Your task to perform on an android device: Go to Amazon Image 0: 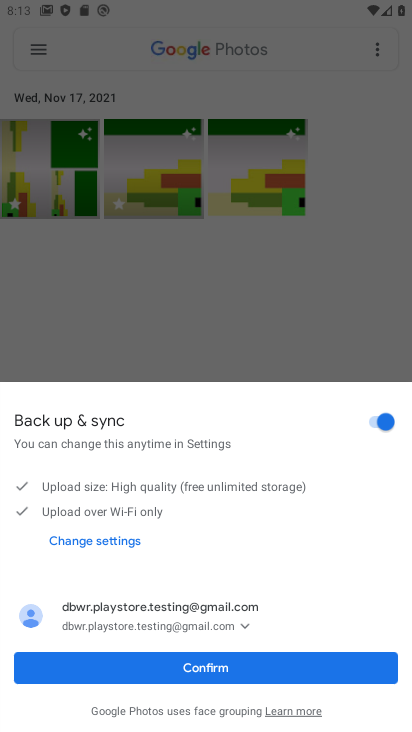
Step 0: press back button
Your task to perform on an android device: Go to Amazon Image 1: 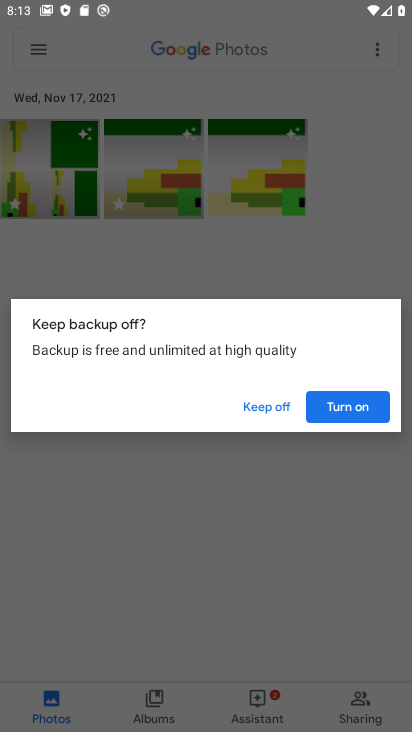
Step 1: press back button
Your task to perform on an android device: Go to Amazon Image 2: 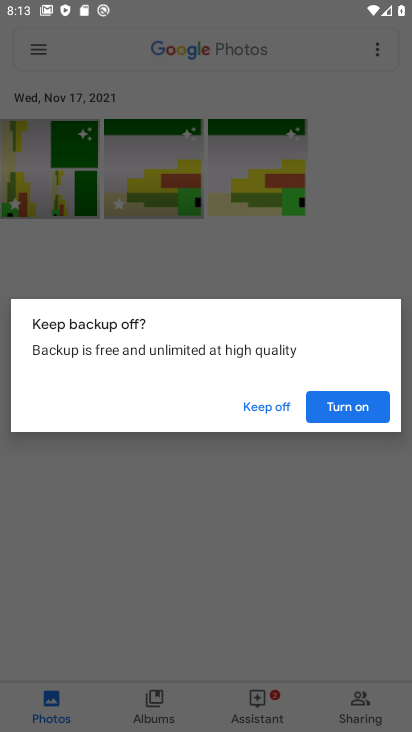
Step 2: press back button
Your task to perform on an android device: Go to Amazon Image 3: 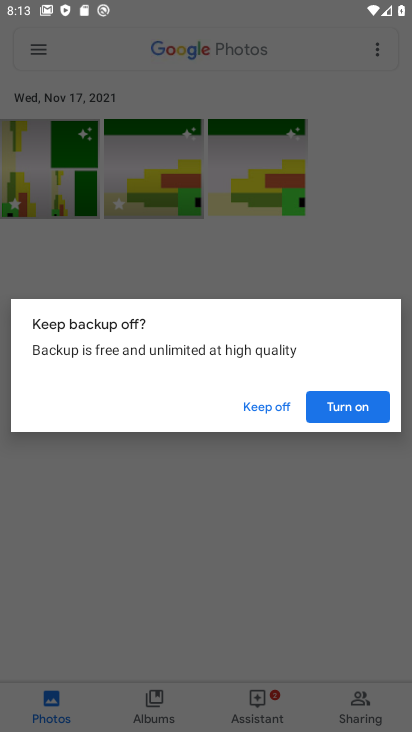
Step 3: press back button
Your task to perform on an android device: Go to Amazon Image 4: 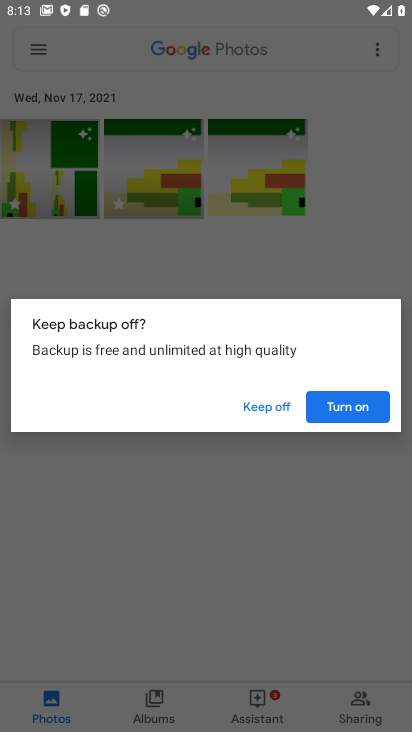
Step 4: press back button
Your task to perform on an android device: Go to Amazon Image 5: 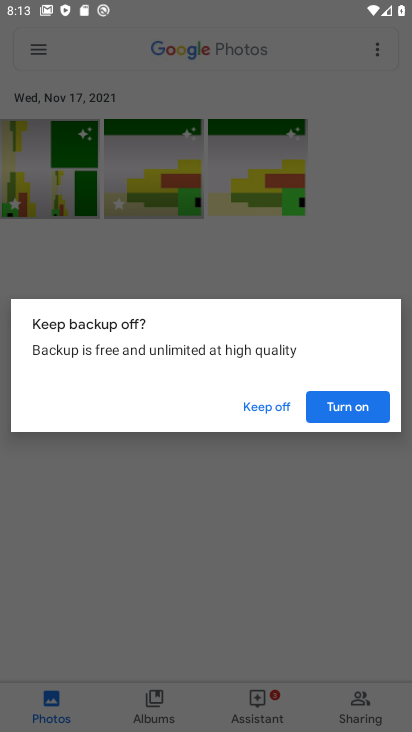
Step 5: press home button
Your task to perform on an android device: Go to Amazon Image 6: 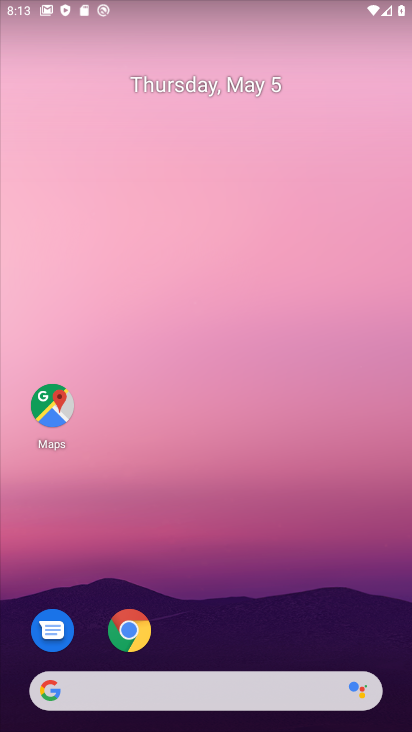
Step 6: click (138, 635)
Your task to perform on an android device: Go to Amazon Image 7: 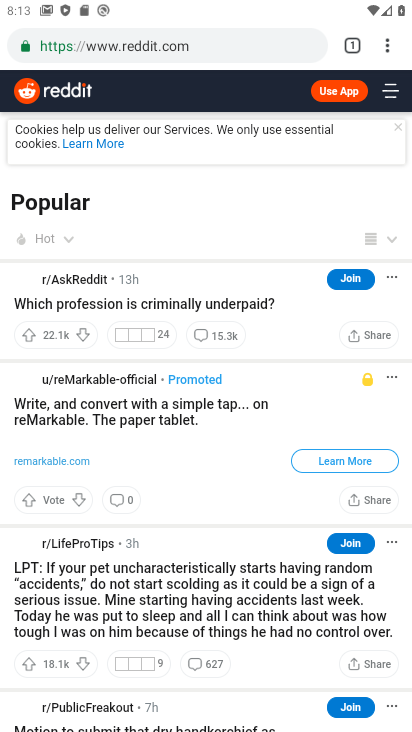
Step 7: click (357, 43)
Your task to perform on an android device: Go to Amazon Image 8: 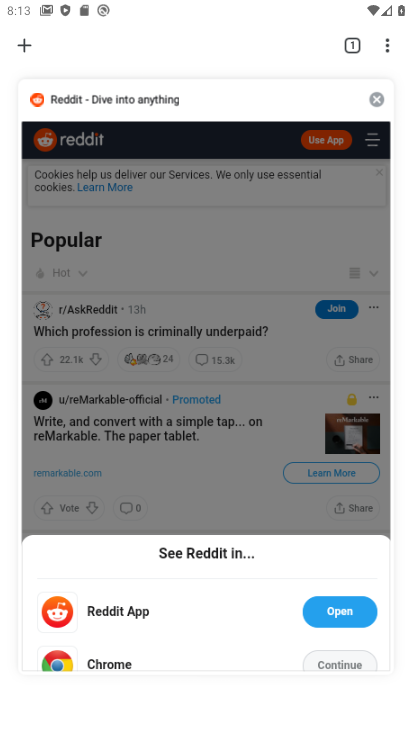
Step 8: click (27, 45)
Your task to perform on an android device: Go to Amazon Image 9: 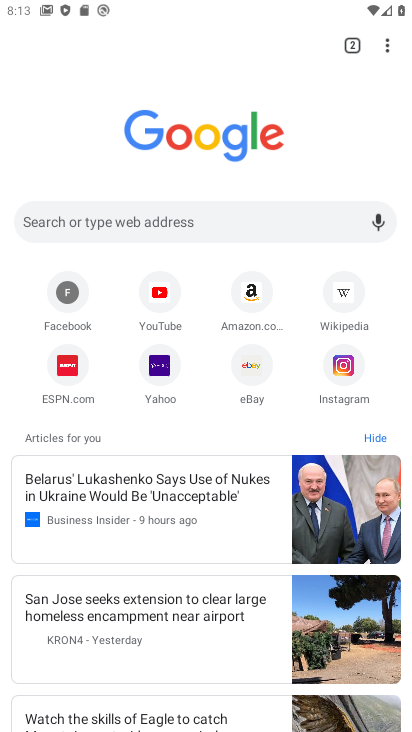
Step 9: click (250, 289)
Your task to perform on an android device: Go to Amazon Image 10: 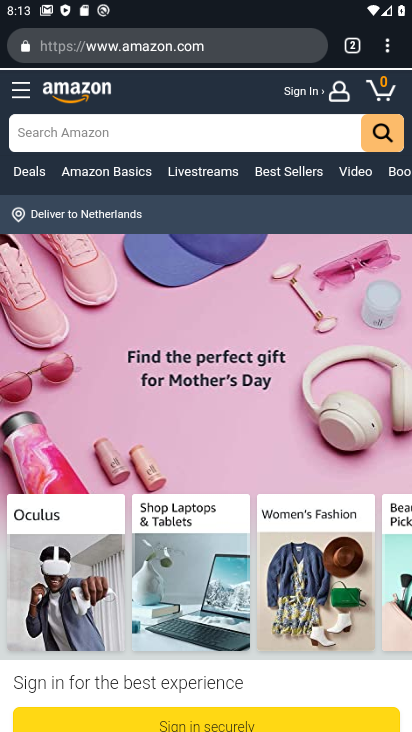
Step 10: task complete